Your task to perform on an android device: Open Chrome and go to the settings page Image 0: 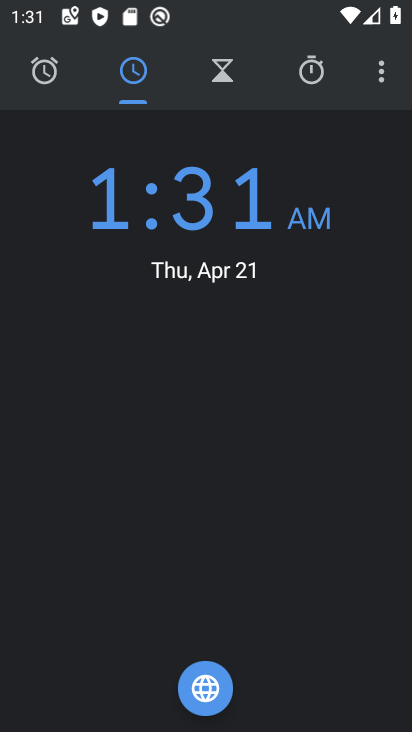
Step 0: press home button
Your task to perform on an android device: Open Chrome and go to the settings page Image 1: 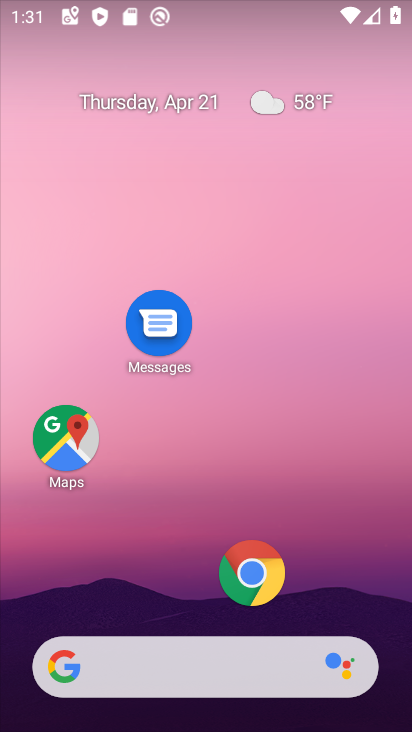
Step 1: click (255, 572)
Your task to perform on an android device: Open Chrome and go to the settings page Image 2: 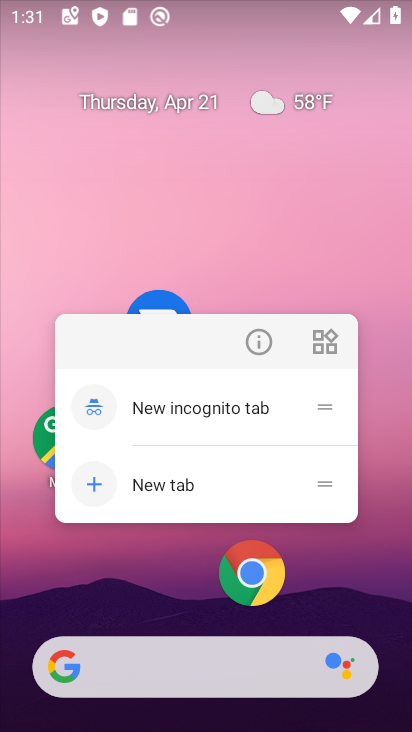
Step 2: click (256, 572)
Your task to perform on an android device: Open Chrome and go to the settings page Image 3: 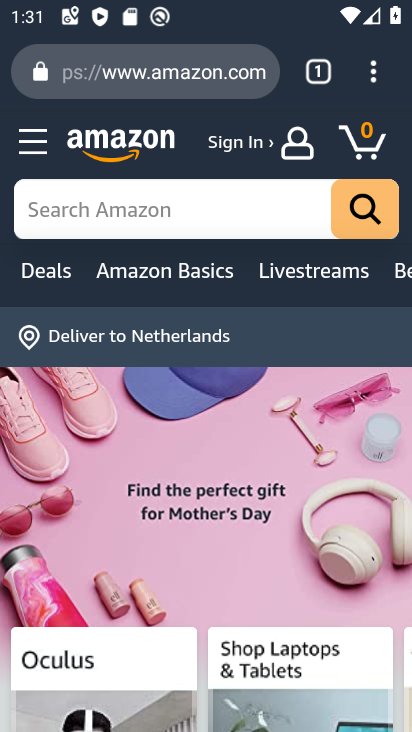
Step 3: click (366, 71)
Your task to perform on an android device: Open Chrome and go to the settings page Image 4: 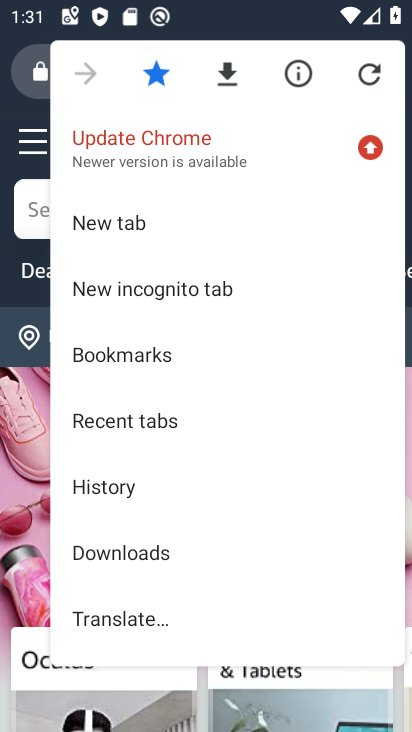
Step 4: drag from (212, 606) to (220, 355)
Your task to perform on an android device: Open Chrome and go to the settings page Image 5: 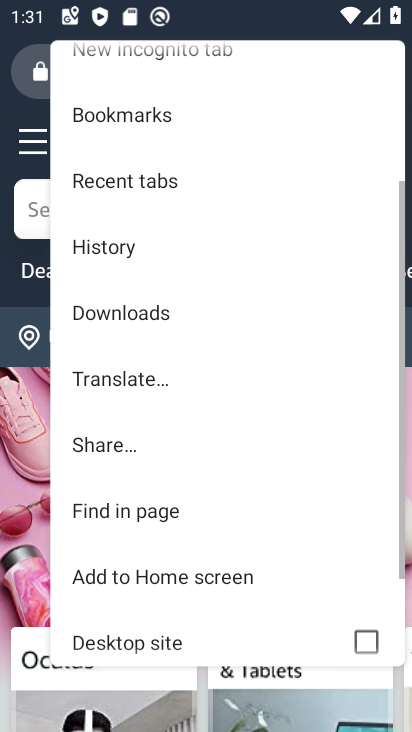
Step 5: drag from (226, 555) to (243, 208)
Your task to perform on an android device: Open Chrome and go to the settings page Image 6: 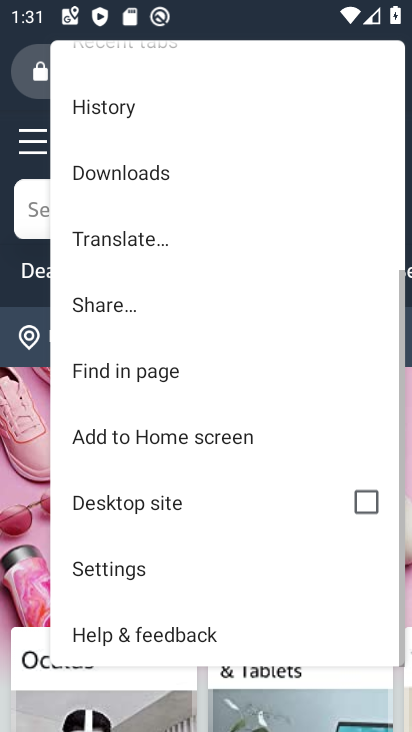
Step 6: click (133, 569)
Your task to perform on an android device: Open Chrome and go to the settings page Image 7: 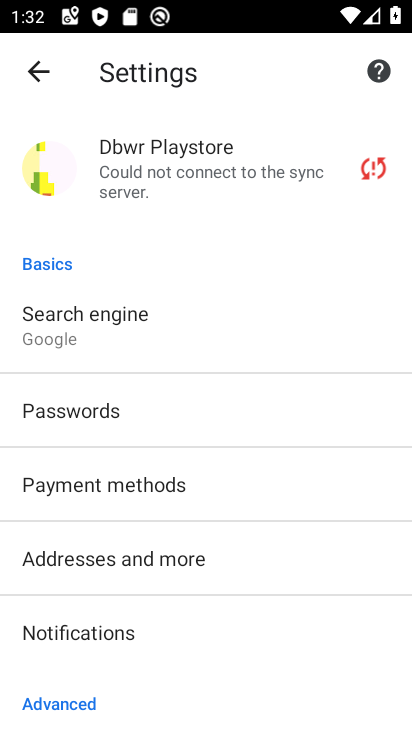
Step 7: task complete